Your task to perform on an android device: Open calendar and show me the second week of next month Image 0: 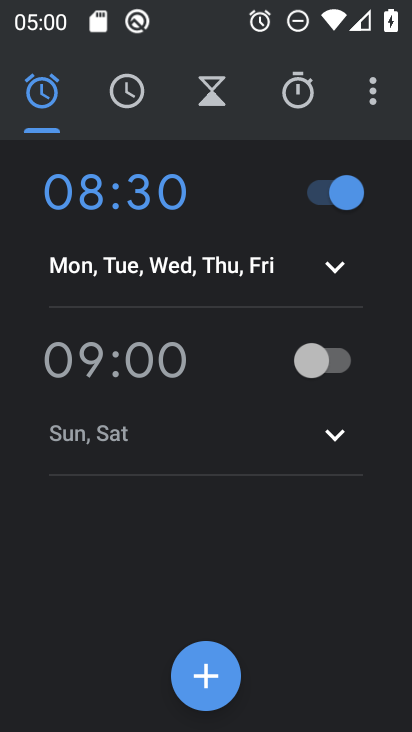
Step 0: press back button
Your task to perform on an android device: Open calendar and show me the second week of next month Image 1: 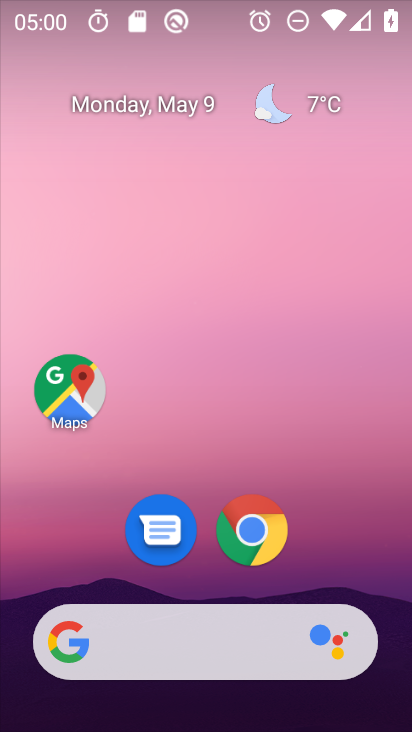
Step 1: drag from (168, 563) to (299, 21)
Your task to perform on an android device: Open calendar and show me the second week of next month Image 2: 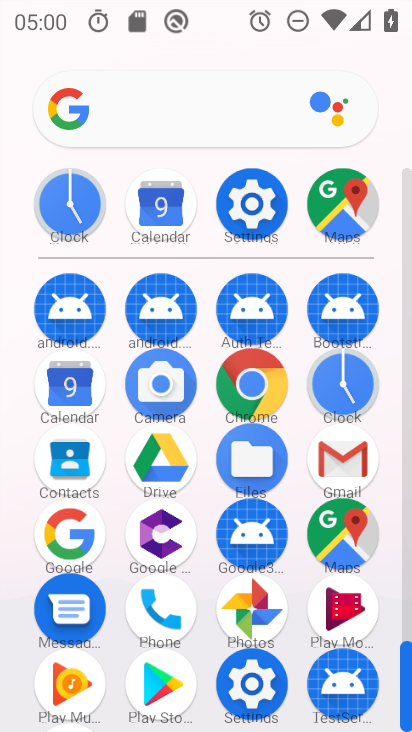
Step 2: click (73, 388)
Your task to perform on an android device: Open calendar and show me the second week of next month Image 3: 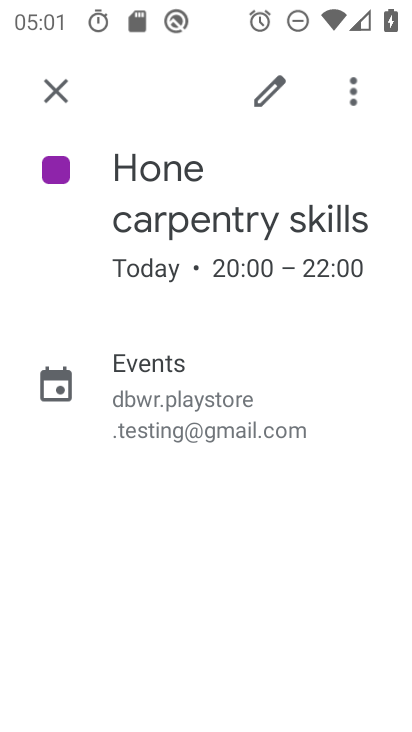
Step 3: click (59, 90)
Your task to perform on an android device: Open calendar and show me the second week of next month Image 4: 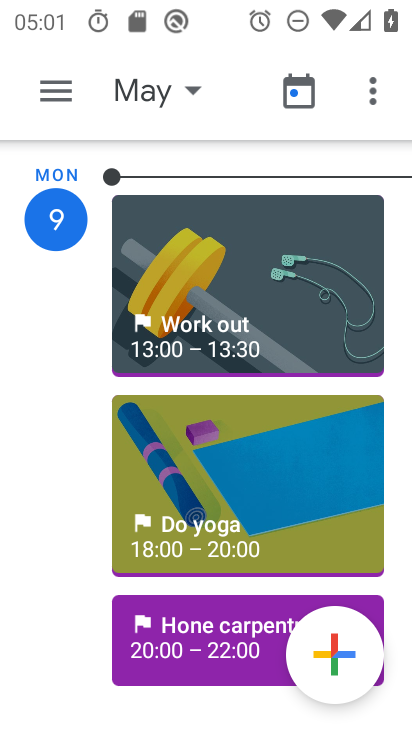
Step 4: click (184, 97)
Your task to perform on an android device: Open calendar and show me the second week of next month Image 5: 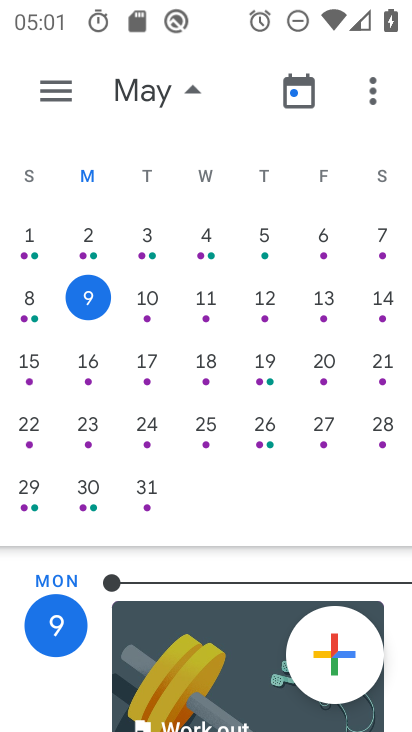
Step 5: drag from (379, 378) to (17, 329)
Your task to perform on an android device: Open calendar and show me the second week of next month Image 6: 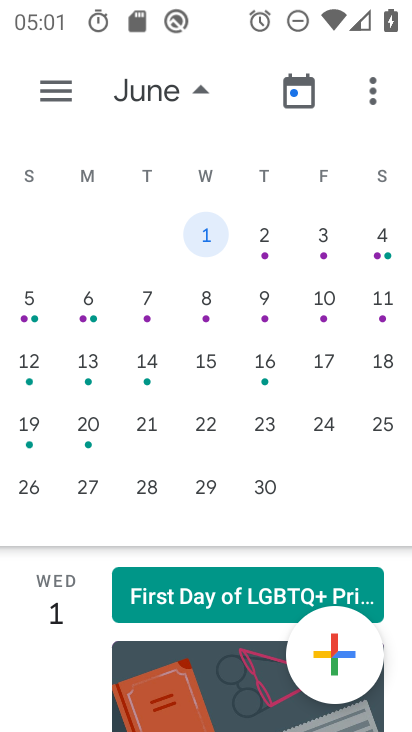
Step 6: click (81, 298)
Your task to perform on an android device: Open calendar and show me the second week of next month Image 7: 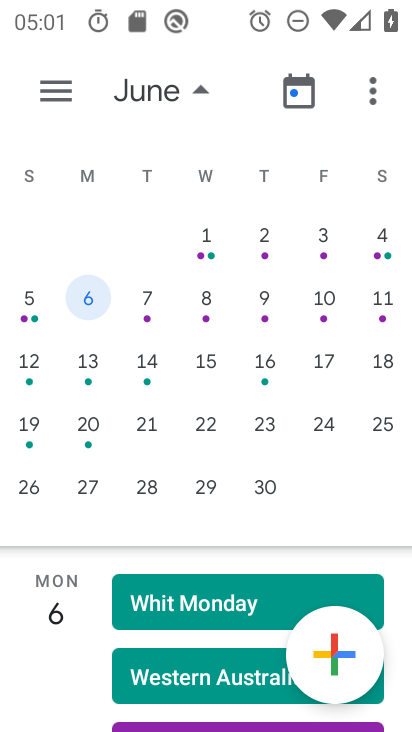
Step 7: task complete